Your task to perform on an android device: Search for vegetarian restaurants on Maps Image 0: 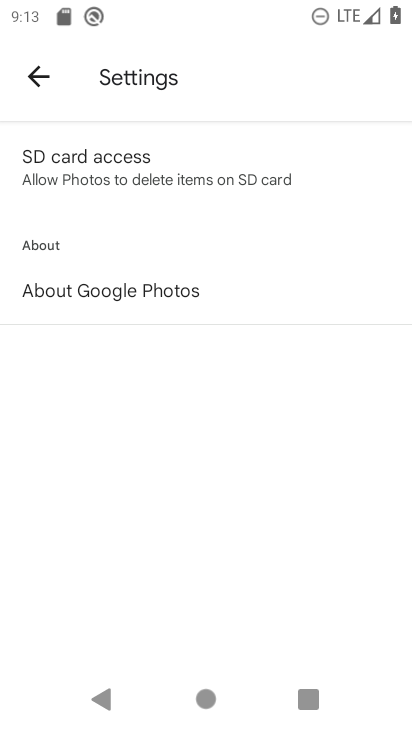
Step 0: press home button
Your task to perform on an android device: Search for vegetarian restaurants on Maps Image 1: 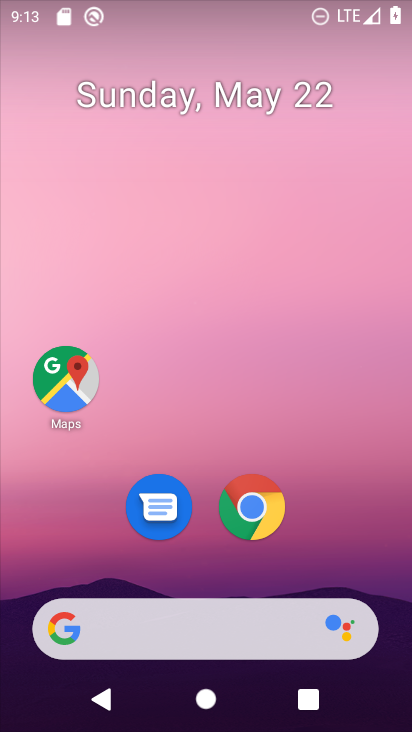
Step 1: click (94, 365)
Your task to perform on an android device: Search for vegetarian restaurants on Maps Image 2: 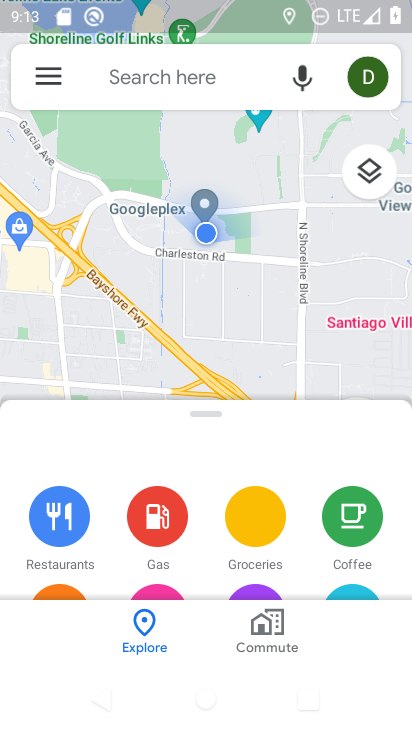
Step 2: click (137, 75)
Your task to perform on an android device: Search for vegetarian restaurants on Maps Image 3: 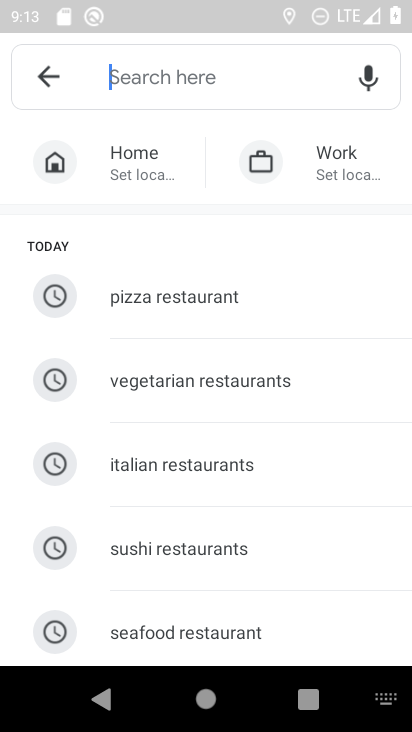
Step 3: click (233, 394)
Your task to perform on an android device: Search for vegetarian restaurants on Maps Image 4: 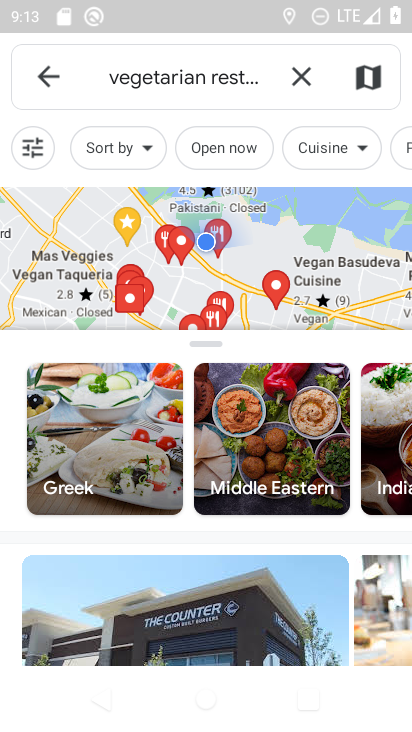
Step 4: task complete